Your task to perform on an android device: Show me the alarms in the clock app Image 0: 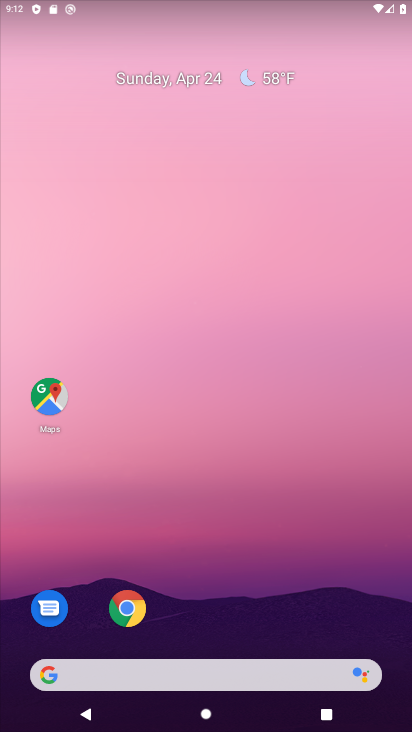
Step 0: drag from (348, 596) to (340, 103)
Your task to perform on an android device: Show me the alarms in the clock app Image 1: 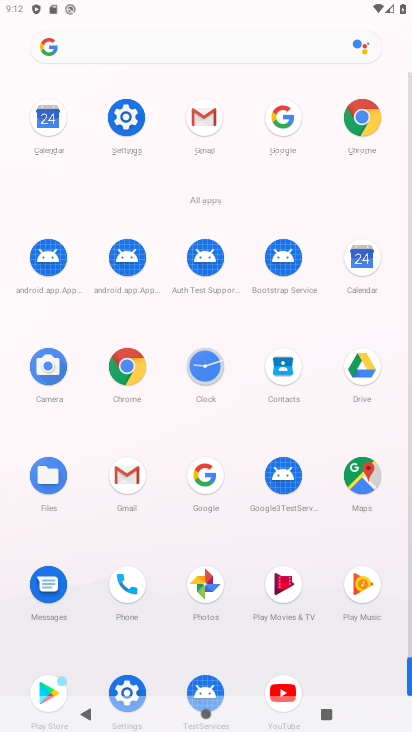
Step 1: click (197, 371)
Your task to perform on an android device: Show me the alarms in the clock app Image 2: 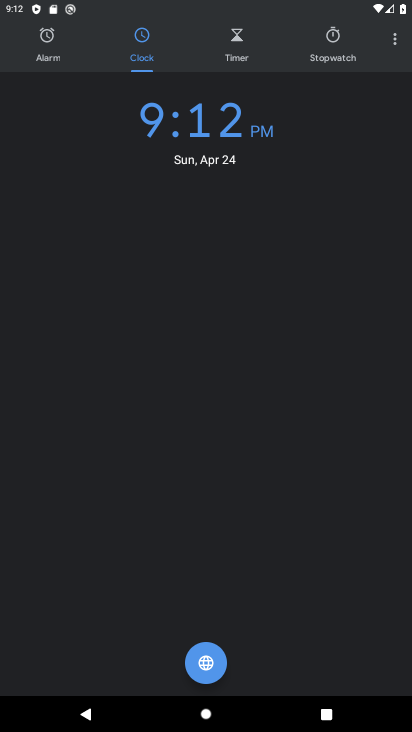
Step 2: click (42, 48)
Your task to perform on an android device: Show me the alarms in the clock app Image 3: 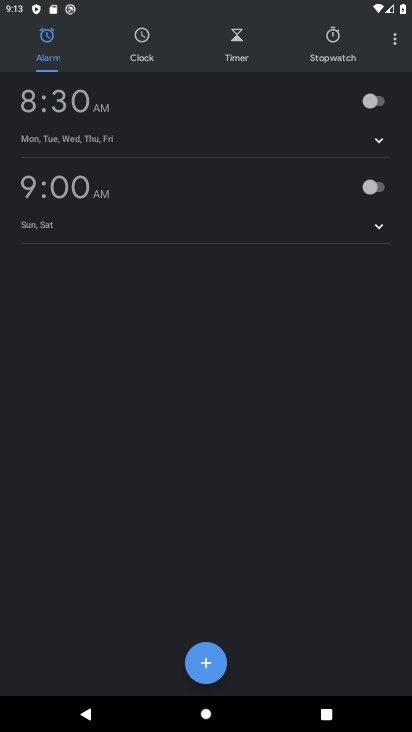
Step 3: task complete